Your task to perform on an android device: Open Google Chrome and open the bookmarks view Image 0: 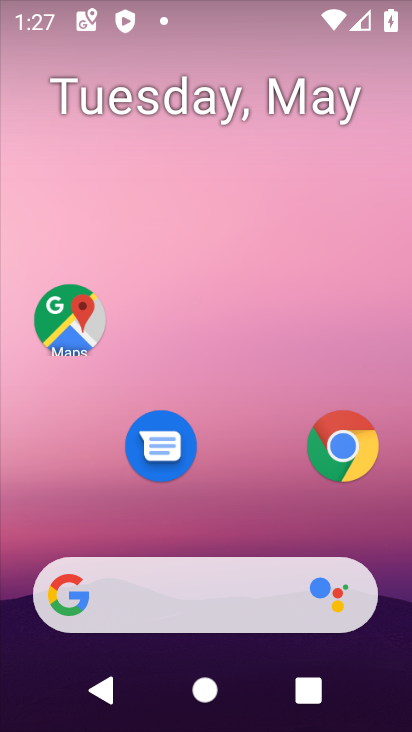
Step 0: click (331, 489)
Your task to perform on an android device: Open Google Chrome and open the bookmarks view Image 1: 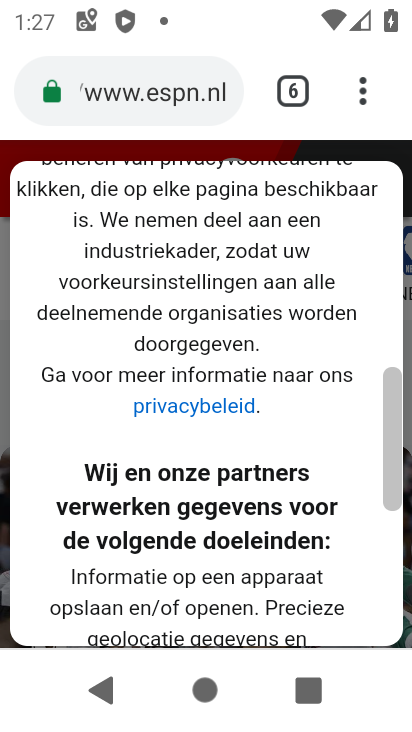
Step 1: click (355, 96)
Your task to perform on an android device: Open Google Chrome and open the bookmarks view Image 2: 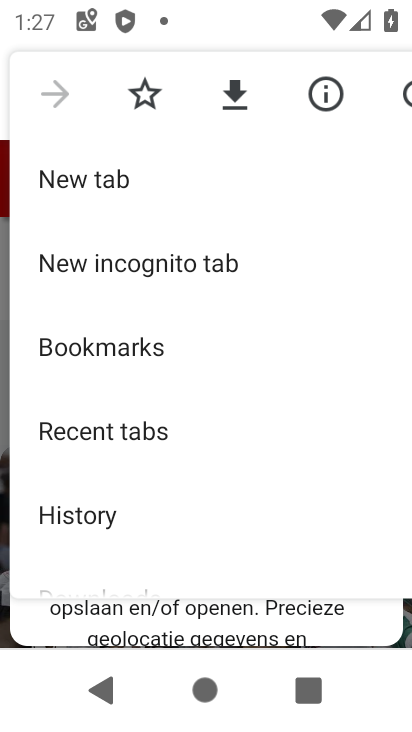
Step 2: click (123, 352)
Your task to perform on an android device: Open Google Chrome and open the bookmarks view Image 3: 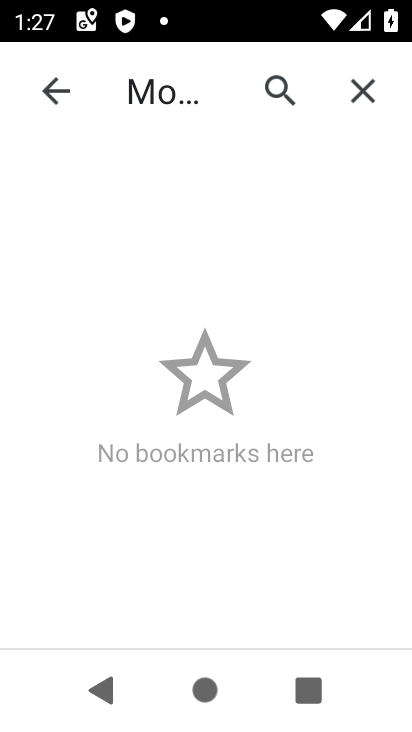
Step 3: task complete